Your task to perform on an android device: set default search engine in the chrome app Image 0: 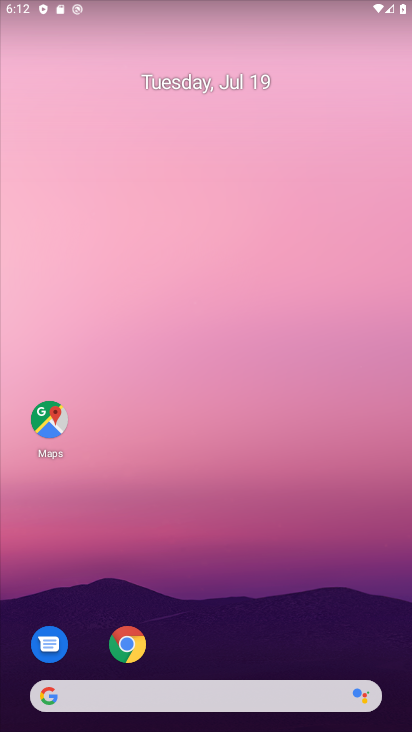
Step 0: drag from (233, 394) to (230, 186)
Your task to perform on an android device: set default search engine in the chrome app Image 1: 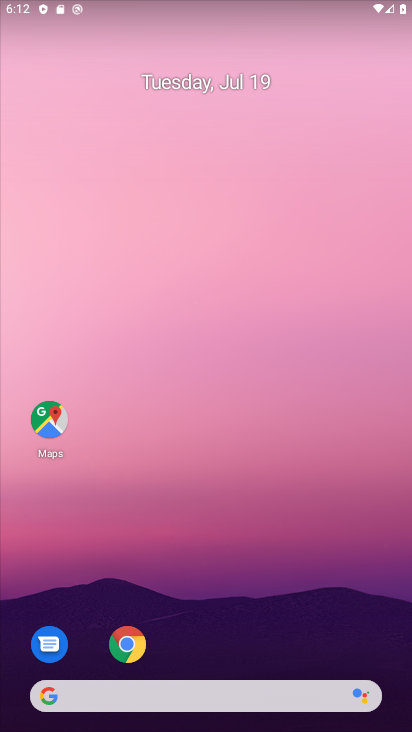
Step 1: click (136, 642)
Your task to perform on an android device: set default search engine in the chrome app Image 2: 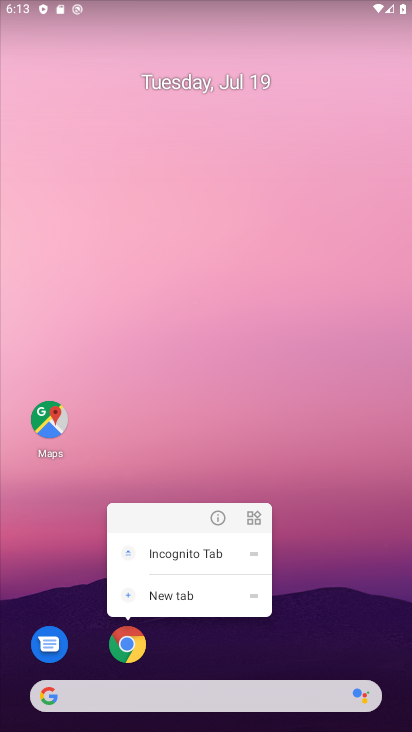
Step 2: click (136, 640)
Your task to perform on an android device: set default search engine in the chrome app Image 3: 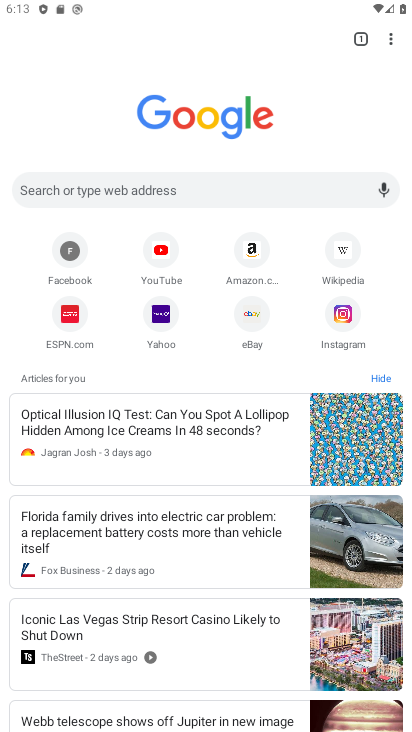
Step 3: click (391, 37)
Your task to perform on an android device: set default search engine in the chrome app Image 4: 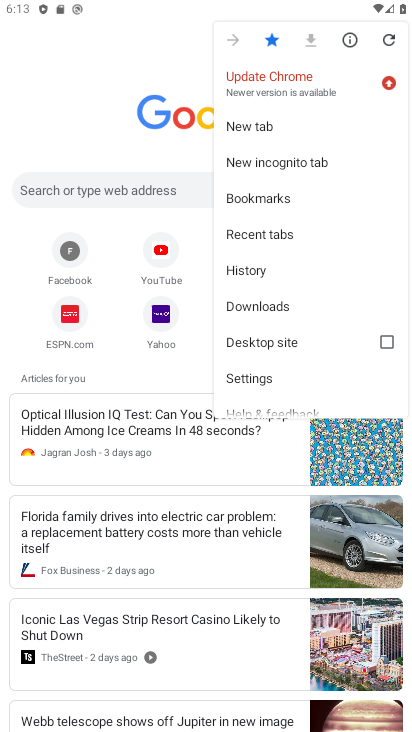
Step 4: task complete